Your task to perform on an android device: open app "ColorNote Notepad Notes" (install if not already installed) Image 0: 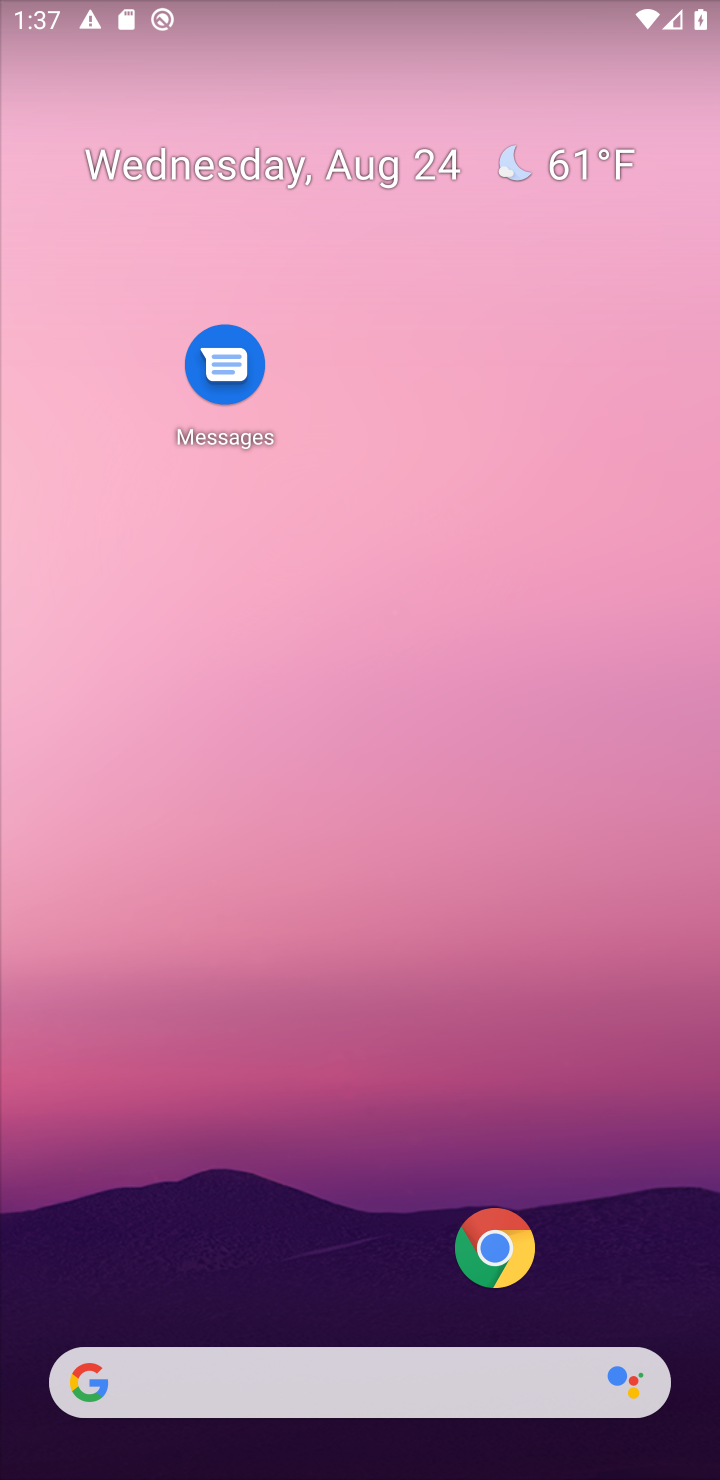
Step 0: drag from (286, 1254) to (334, 473)
Your task to perform on an android device: open app "ColorNote Notepad Notes" (install if not already installed) Image 1: 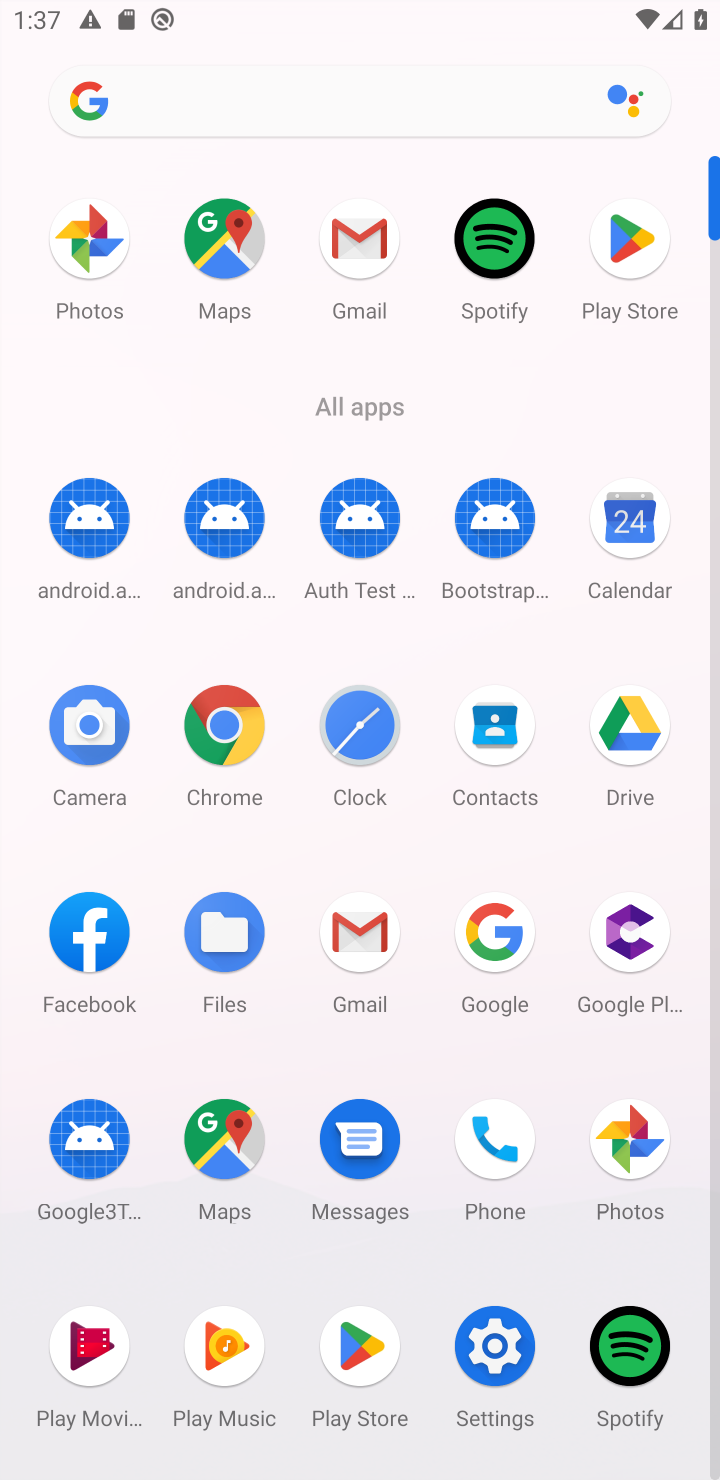
Step 1: click (640, 237)
Your task to perform on an android device: open app "ColorNote Notepad Notes" (install if not already installed) Image 2: 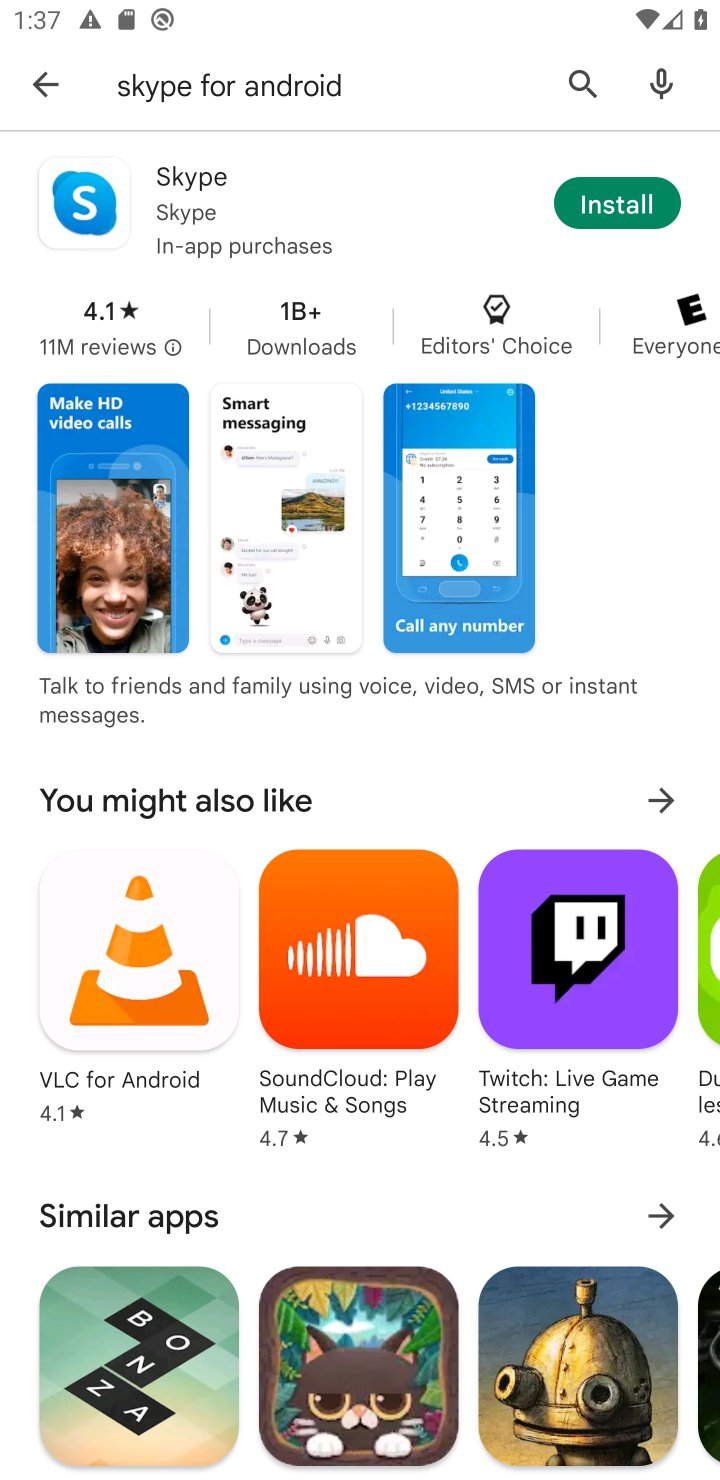
Step 2: click (38, 77)
Your task to perform on an android device: open app "ColorNote Notepad Notes" (install if not already installed) Image 3: 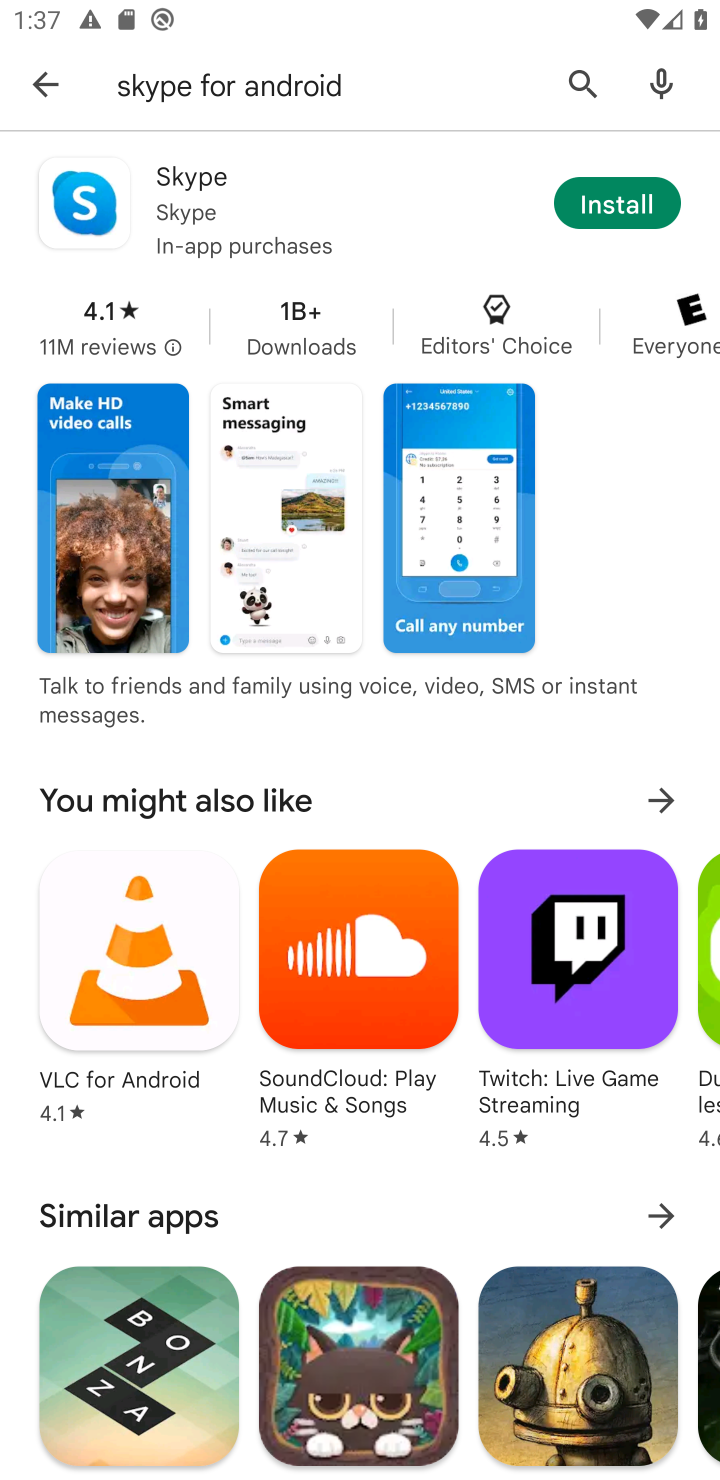
Step 3: click (595, 72)
Your task to perform on an android device: open app "ColorNote Notepad Notes" (install if not already installed) Image 4: 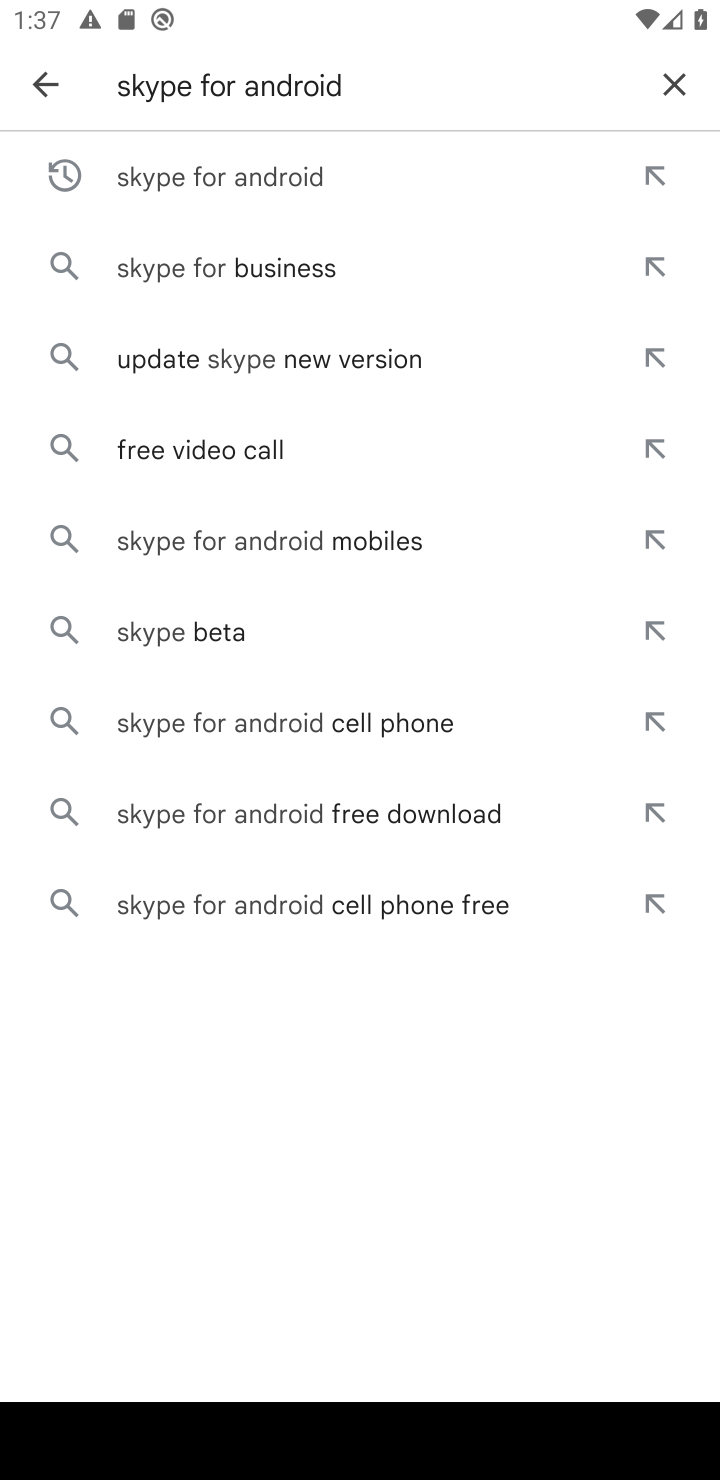
Step 4: click (690, 70)
Your task to perform on an android device: open app "ColorNote Notepad Notes" (install if not already installed) Image 5: 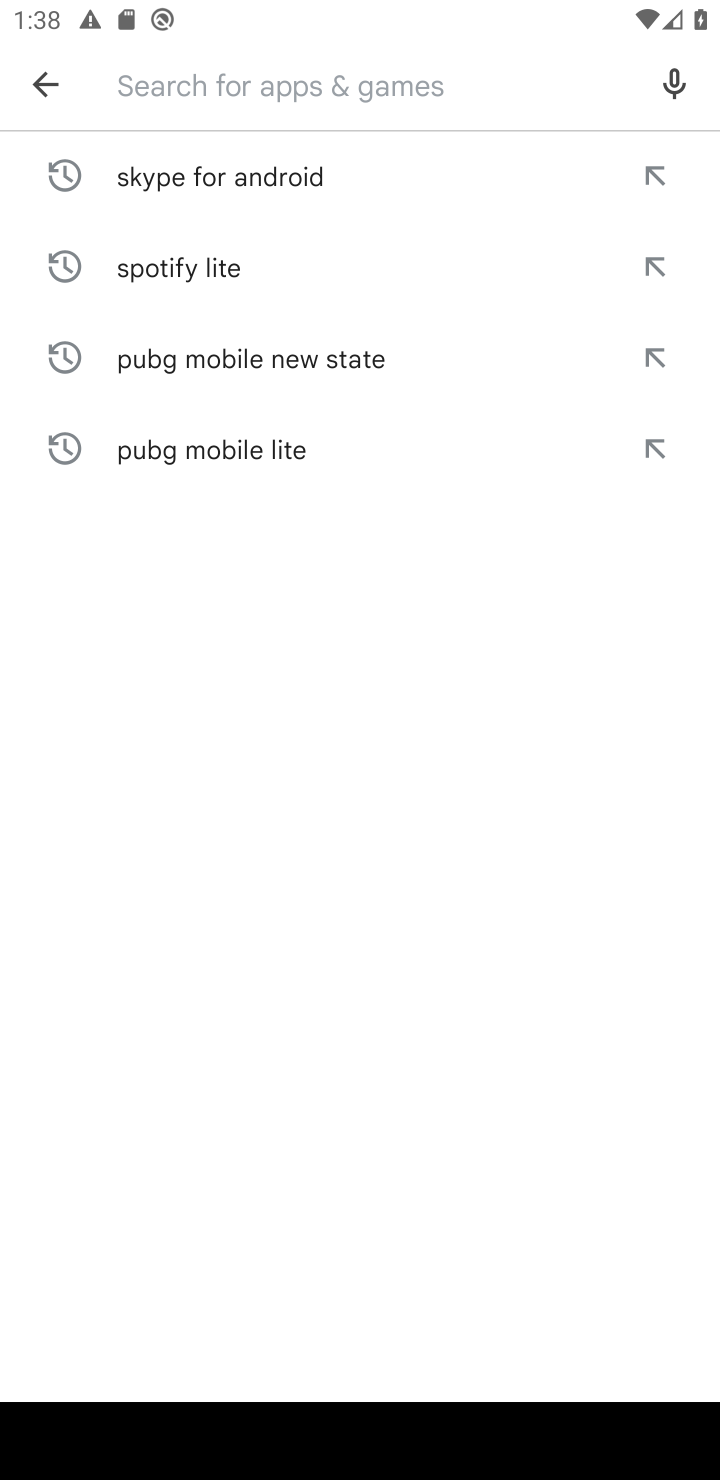
Step 5: click (296, 65)
Your task to perform on an android device: open app "ColorNote Notepad Notes" (install if not already installed) Image 6: 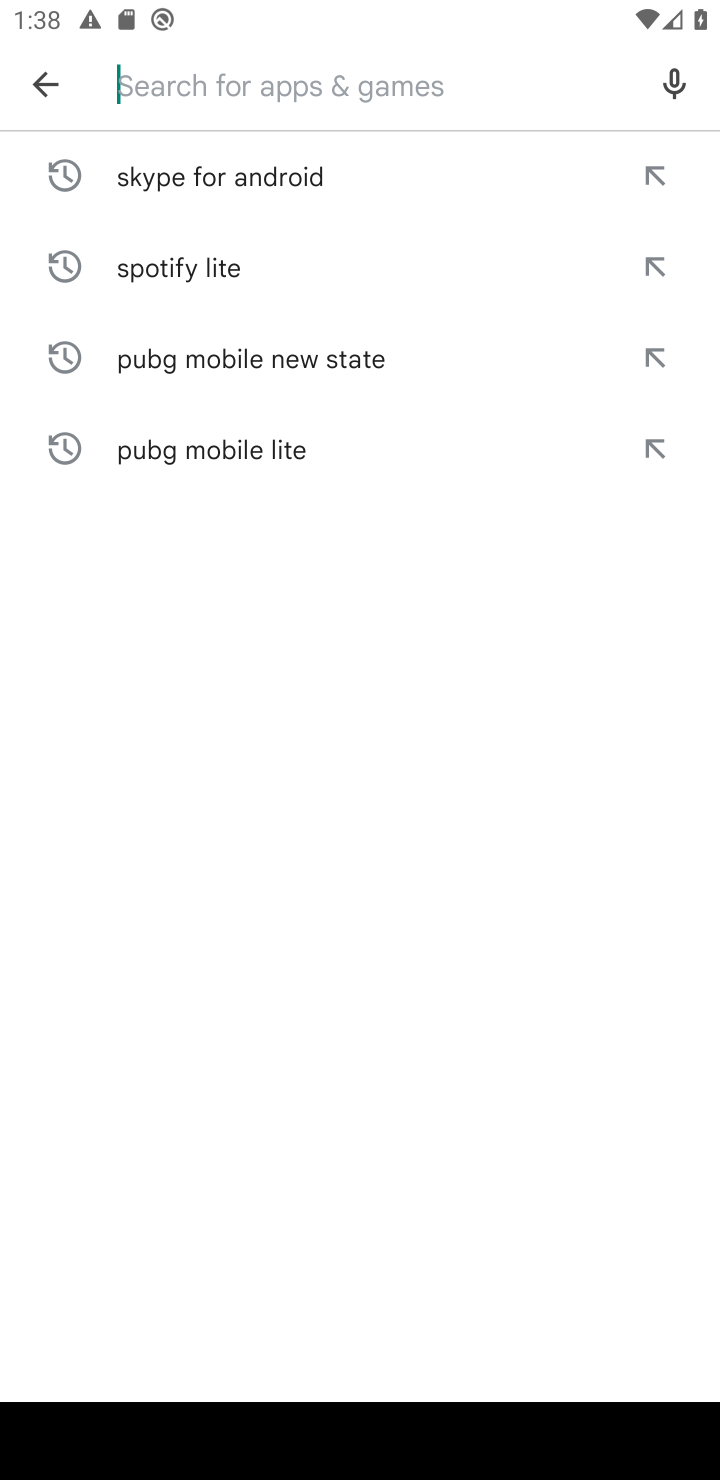
Step 6: type "ColorNote "
Your task to perform on an android device: open app "ColorNote Notepad Notes" (install if not already installed) Image 7: 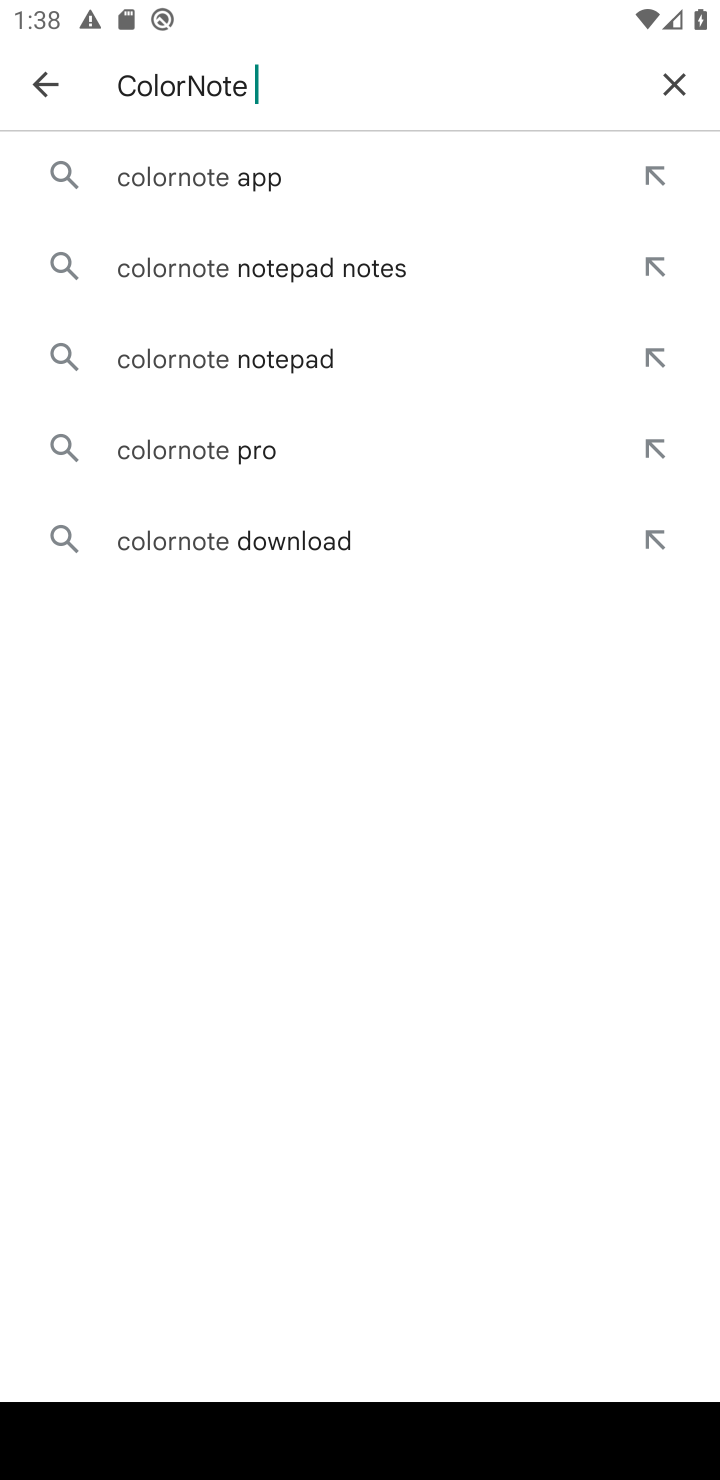
Step 7: click (174, 256)
Your task to perform on an android device: open app "ColorNote Notepad Notes" (install if not already installed) Image 8: 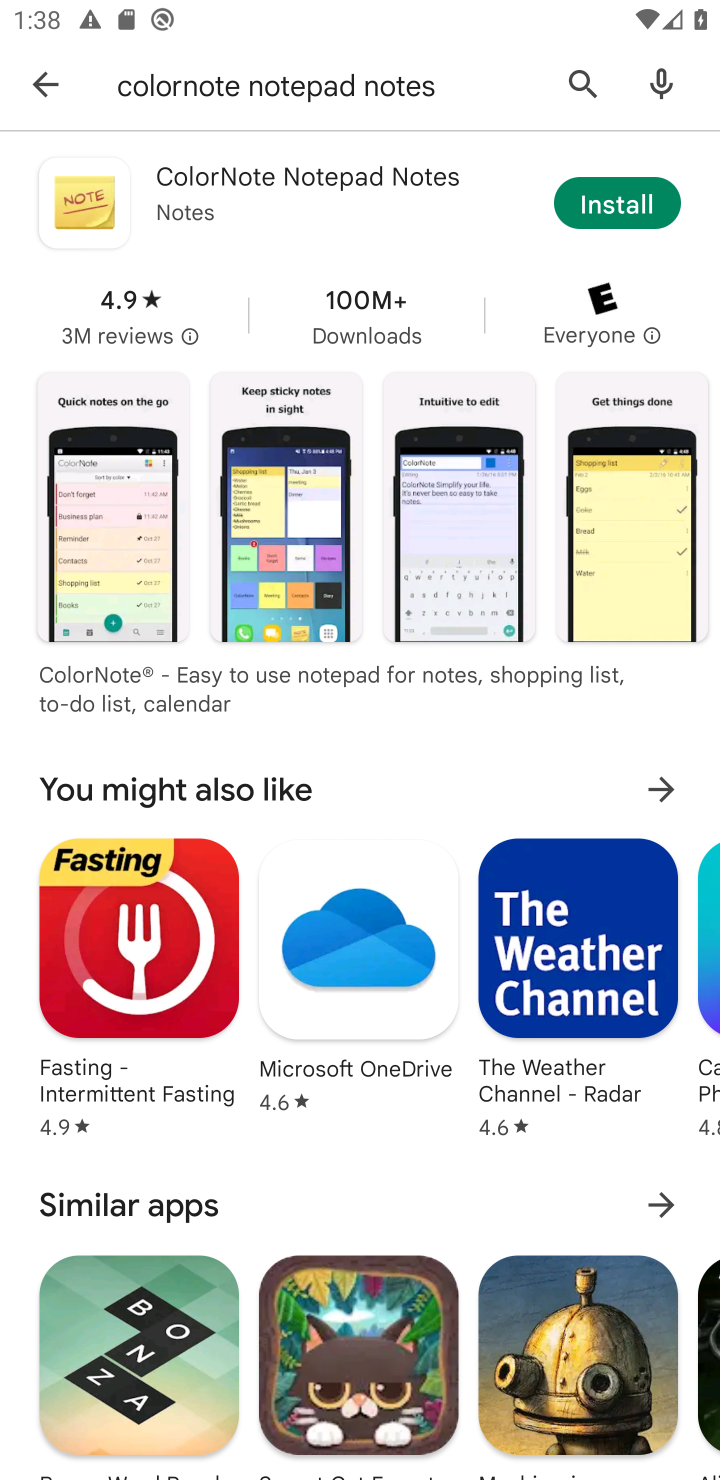
Step 8: click (609, 207)
Your task to perform on an android device: open app "ColorNote Notepad Notes" (install if not already installed) Image 9: 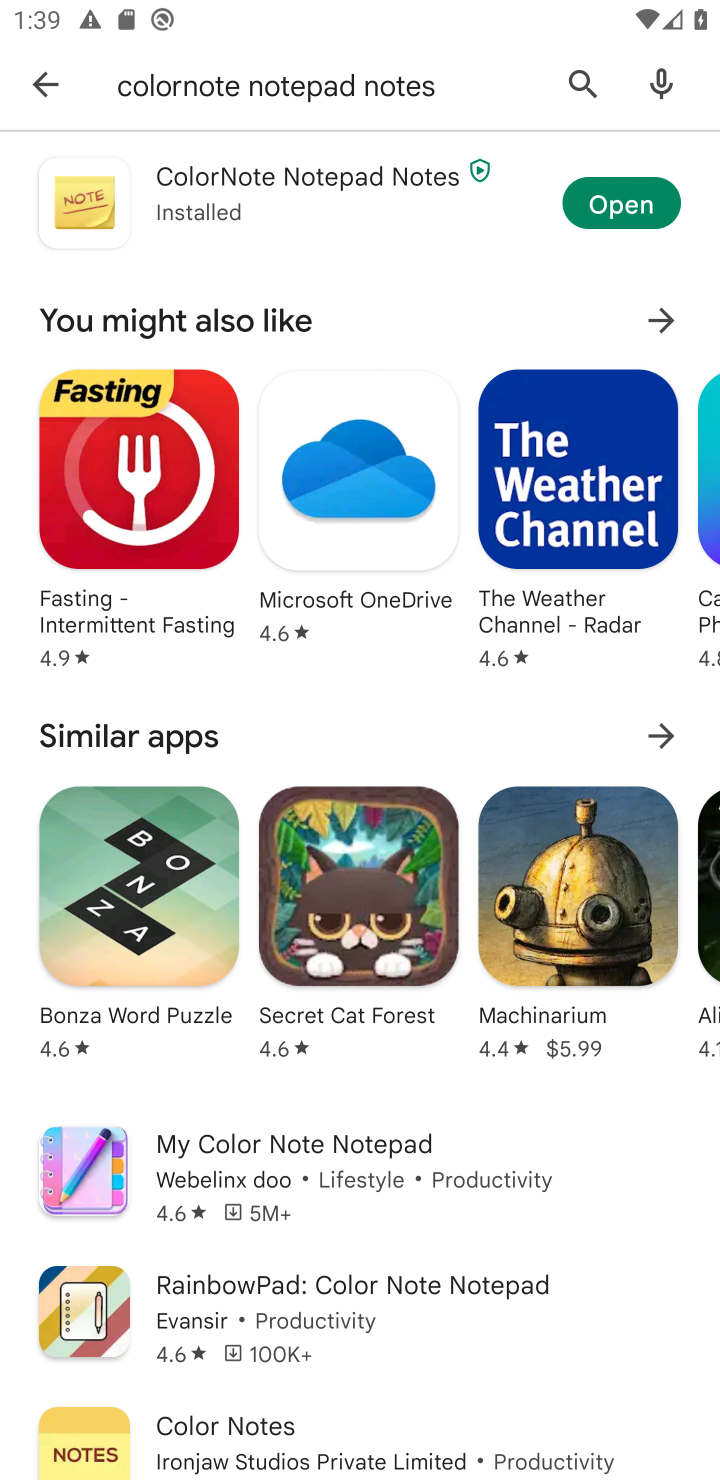
Step 9: task complete